Your task to perform on an android device: move an email to a new category in the gmail app Image 0: 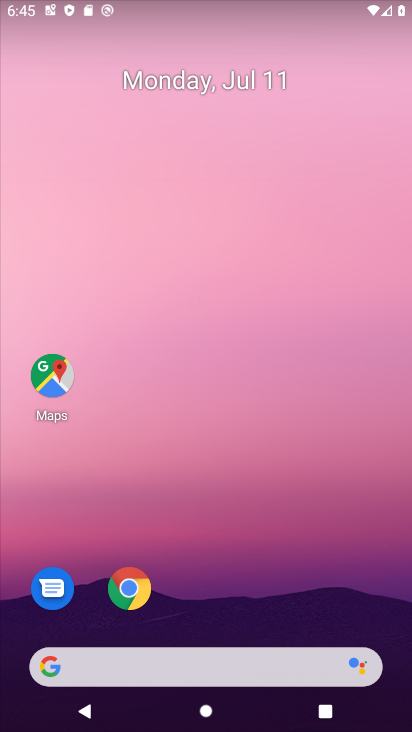
Step 0: drag from (302, 574) to (287, 57)
Your task to perform on an android device: move an email to a new category in the gmail app Image 1: 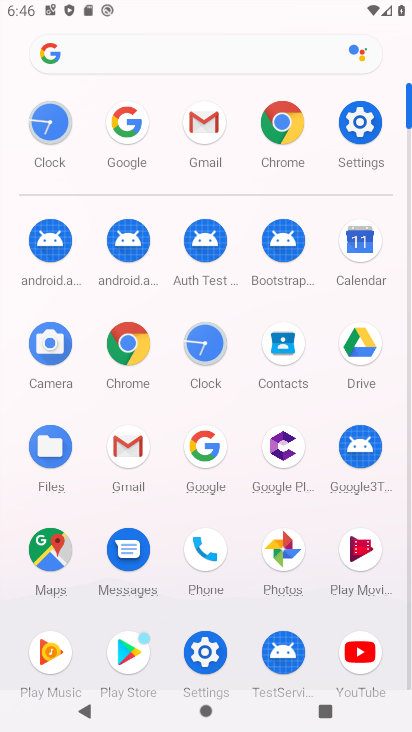
Step 1: click (111, 443)
Your task to perform on an android device: move an email to a new category in the gmail app Image 2: 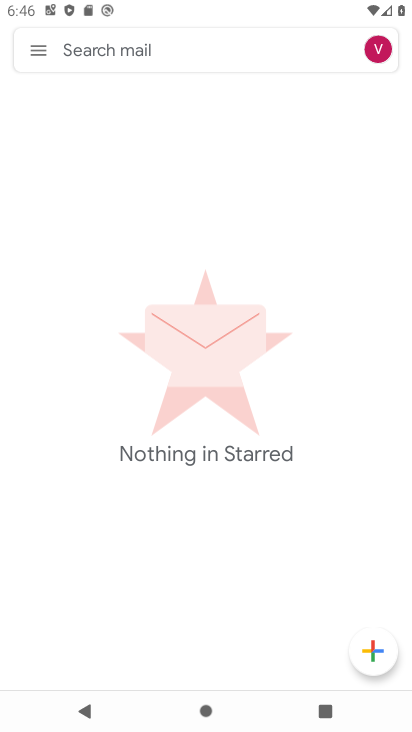
Step 2: task complete